Your task to perform on an android device: turn off picture-in-picture Image 0: 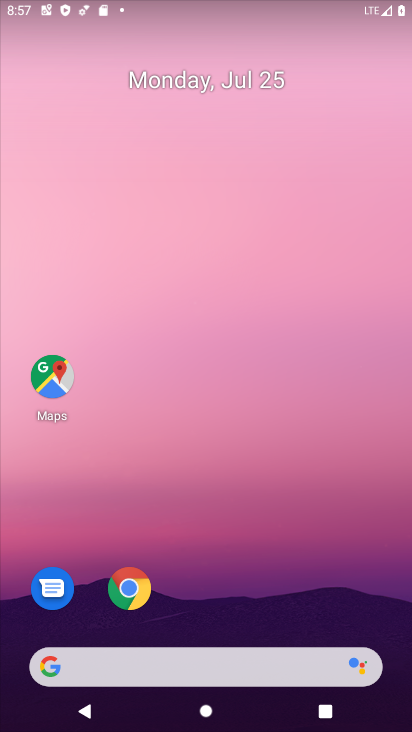
Step 0: click (134, 586)
Your task to perform on an android device: turn off picture-in-picture Image 1: 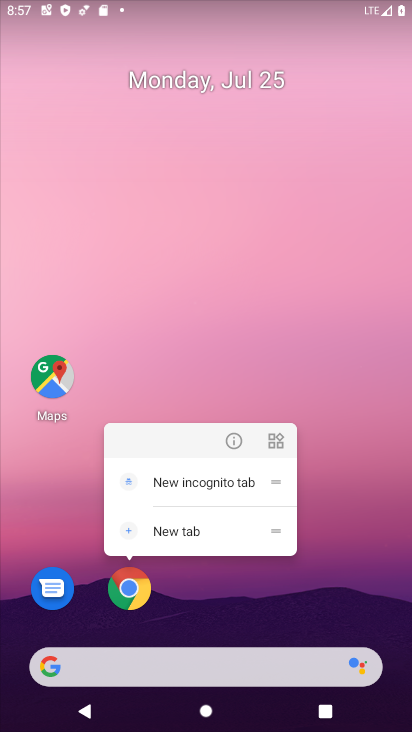
Step 1: click (244, 444)
Your task to perform on an android device: turn off picture-in-picture Image 2: 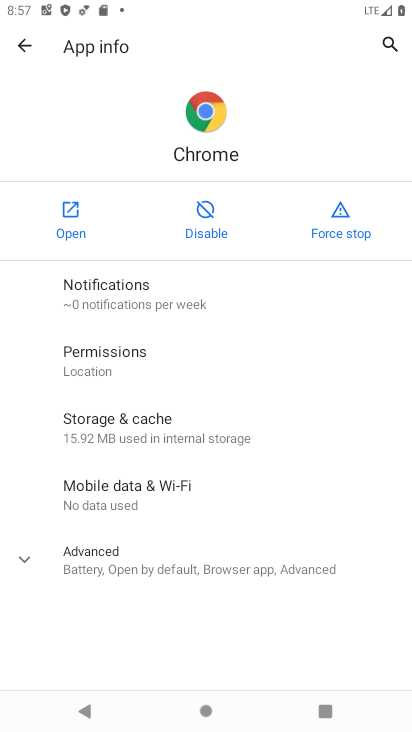
Step 2: click (166, 575)
Your task to perform on an android device: turn off picture-in-picture Image 3: 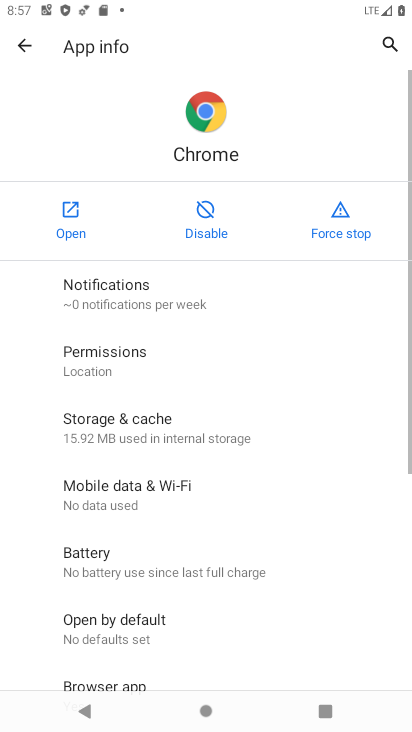
Step 3: drag from (198, 608) to (253, 181)
Your task to perform on an android device: turn off picture-in-picture Image 4: 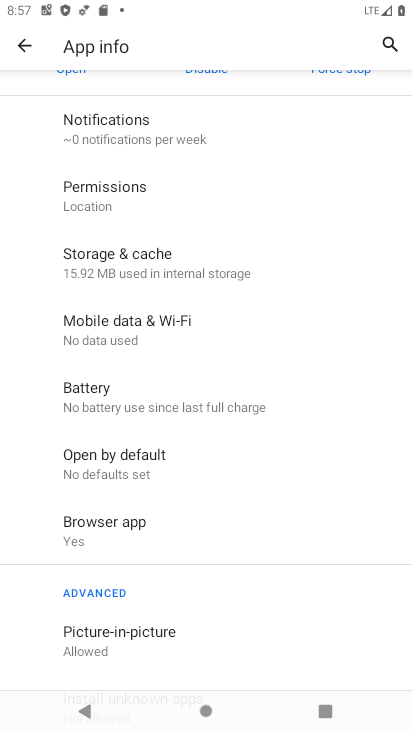
Step 4: click (138, 625)
Your task to perform on an android device: turn off picture-in-picture Image 5: 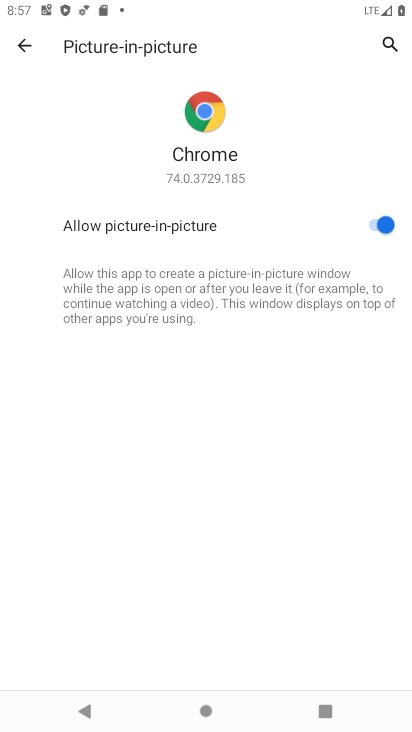
Step 5: click (371, 226)
Your task to perform on an android device: turn off picture-in-picture Image 6: 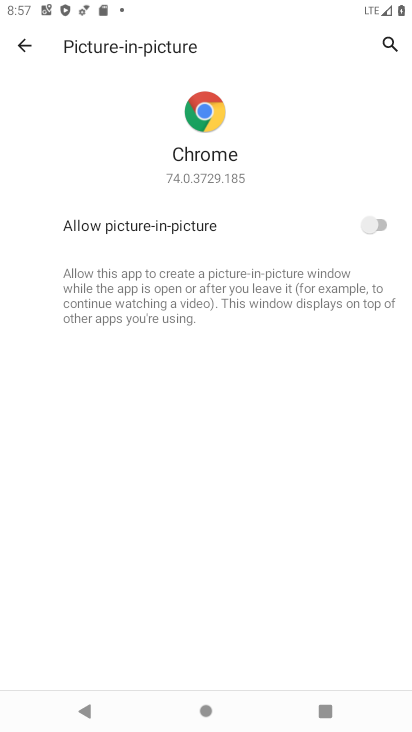
Step 6: task complete